Your task to perform on an android device: Set the phone to "Do not disturb". Image 0: 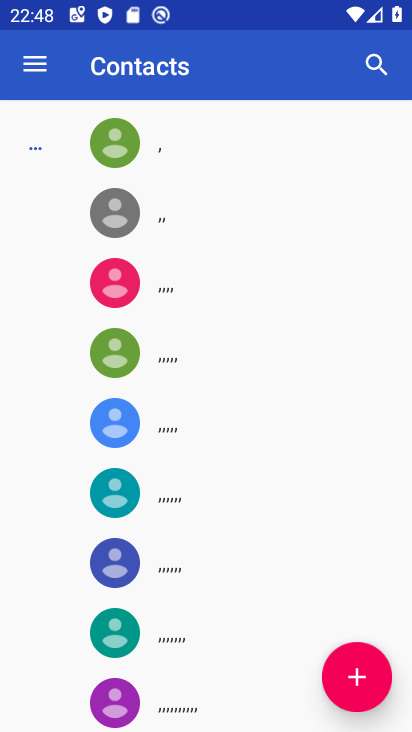
Step 0: press home button
Your task to perform on an android device: Set the phone to "Do not disturb". Image 1: 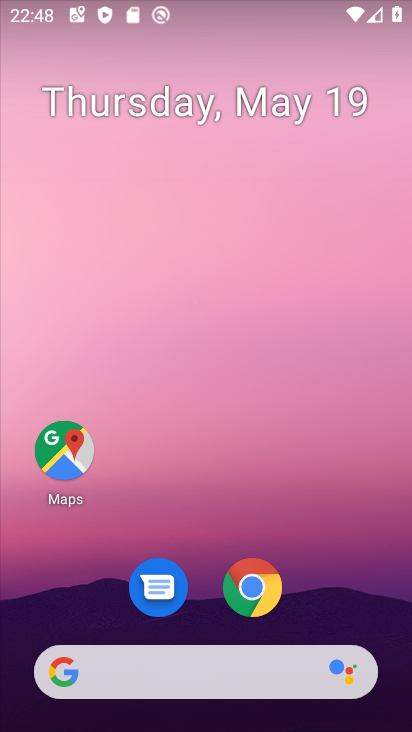
Step 1: drag from (212, 701) to (223, 193)
Your task to perform on an android device: Set the phone to "Do not disturb". Image 2: 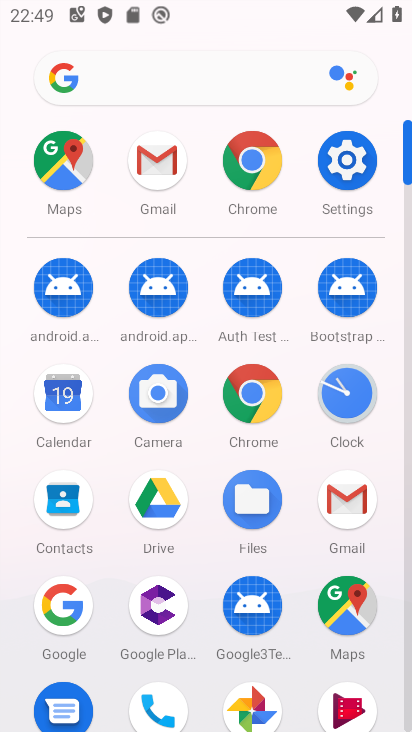
Step 2: click (338, 165)
Your task to perform on an android device: Set the phone to "Do not disturb". Image 3: 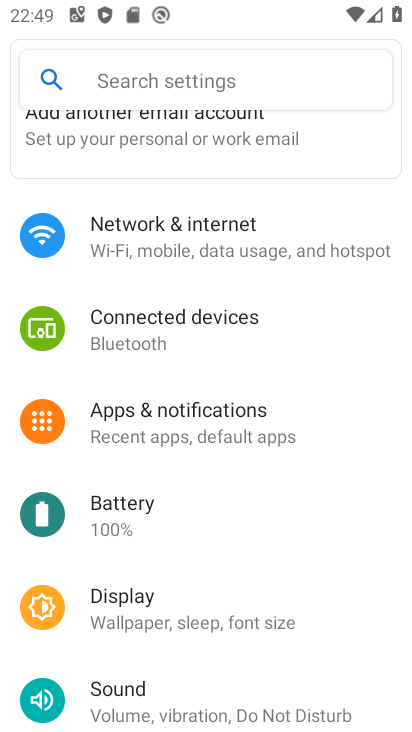
Step 3: click (150, 82)
Your task to perform on an android device: Set the phone to "Do not disturb". Image 4: 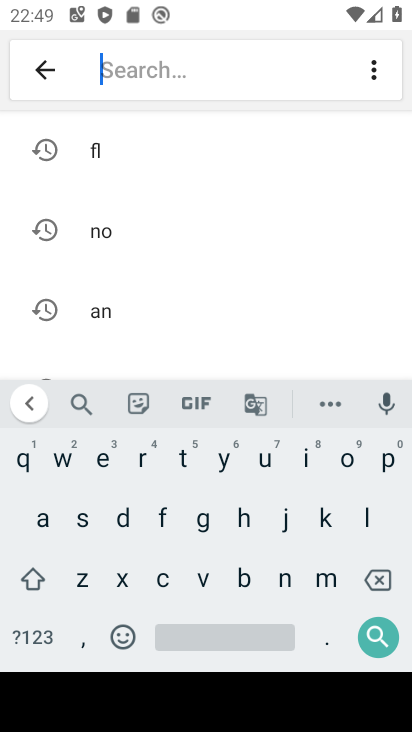
Step 4: click (116, 508)
Your task to perform on an android device: Set the phone to "Do not disturb". Image 5: 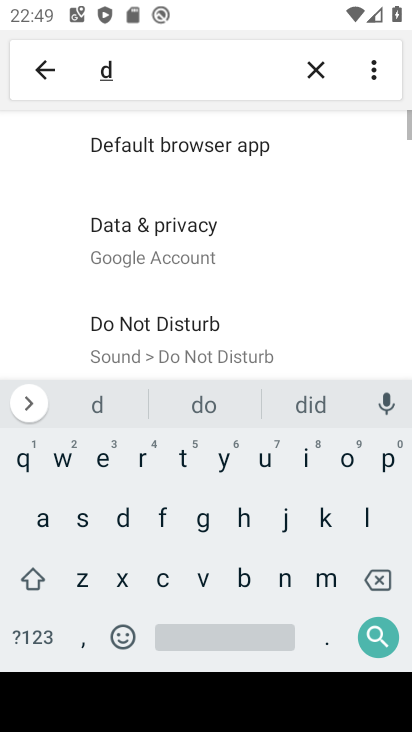
Step 5: click (274, 572)
Your task to perform on an android device: Set the phone to "Do not disturb". Image 6: 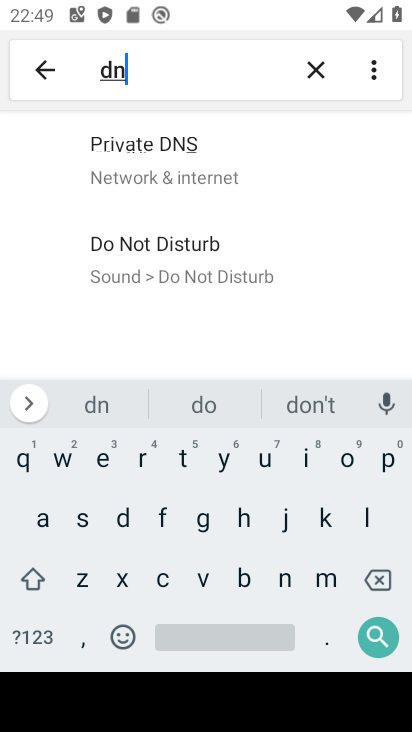
Step 6: click (154, 229)
Your task to perform on an android device: Set the phone to "Do not disturb". Image 7: 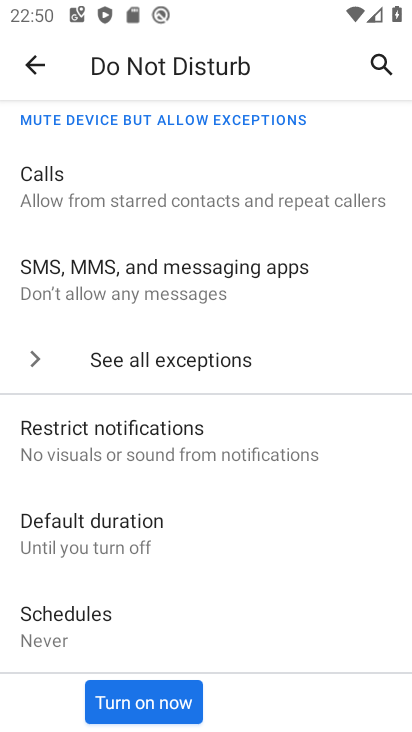
Step 7: task complete